Your task to perform on an android device: open app "Move to iOS" Image 0: 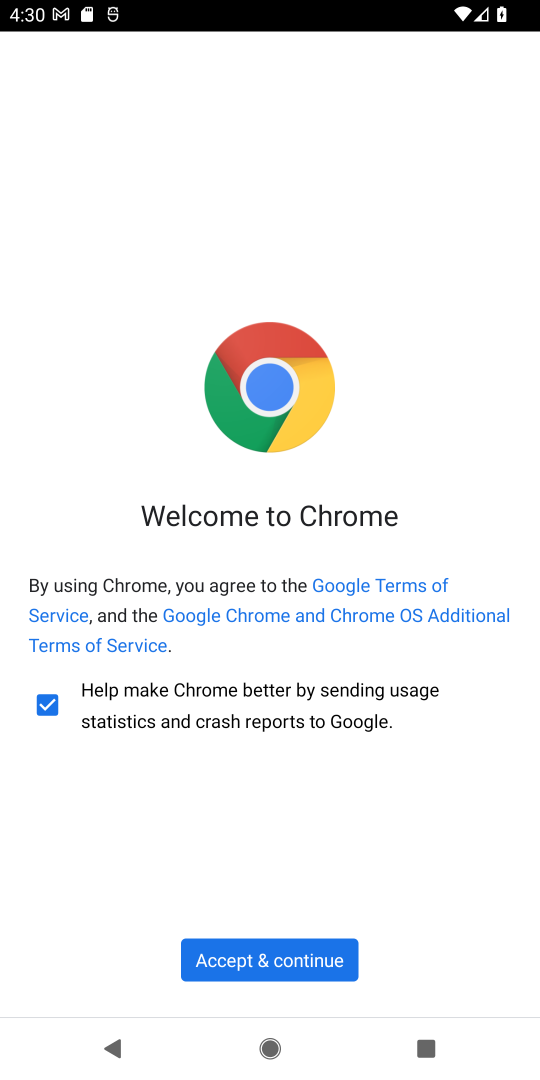
Step 0: press home button
Your task to perform on an android device: open app "Move to iOS" Image 1: 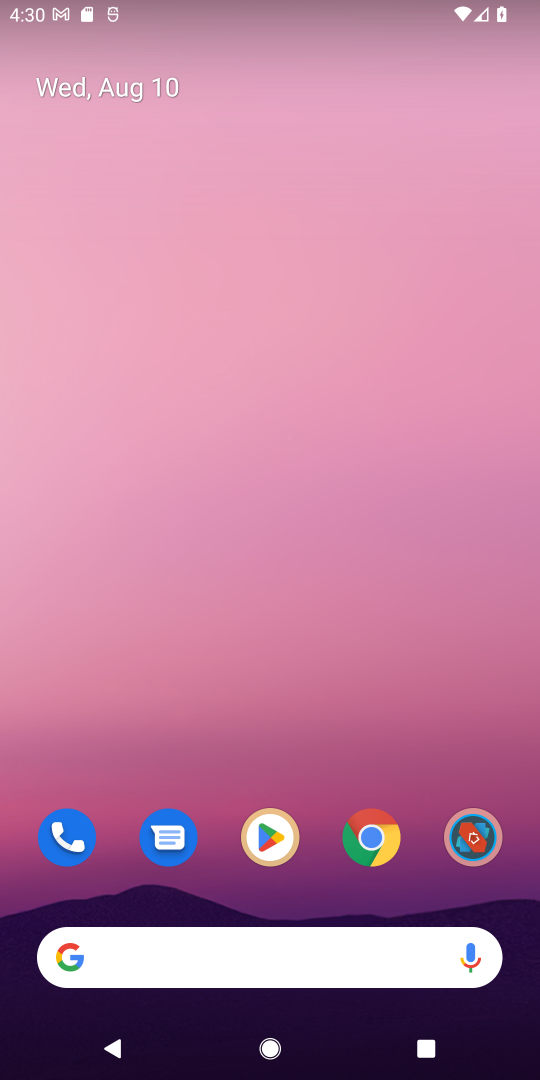
Step 1: click (264, 835)
Your task to perform on an android device: open app "Move to iOS" Image 2: 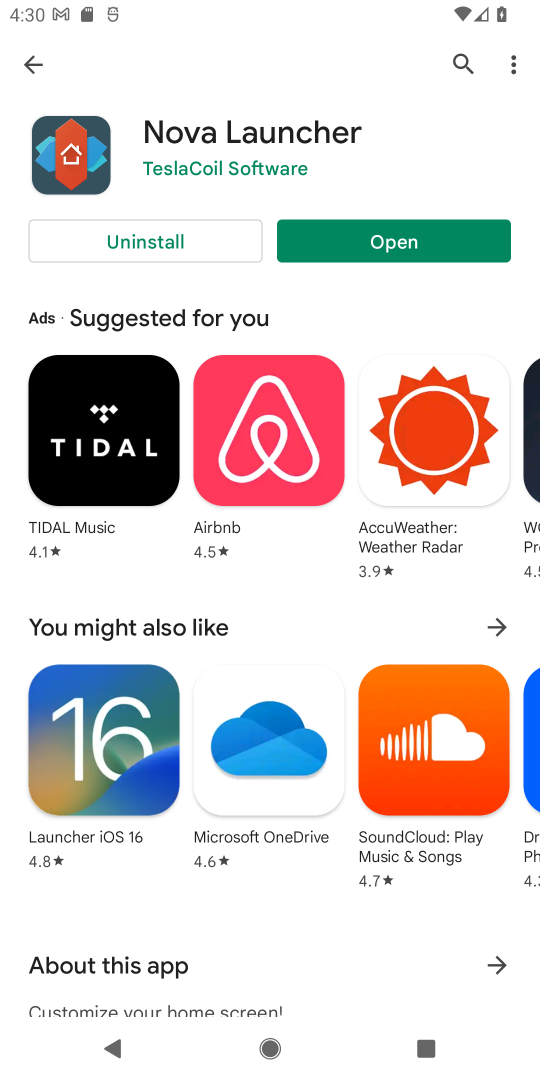
Step 2: click (460, 56)
Your task to perform on an android device: open app "Move to iOS" Image 3: 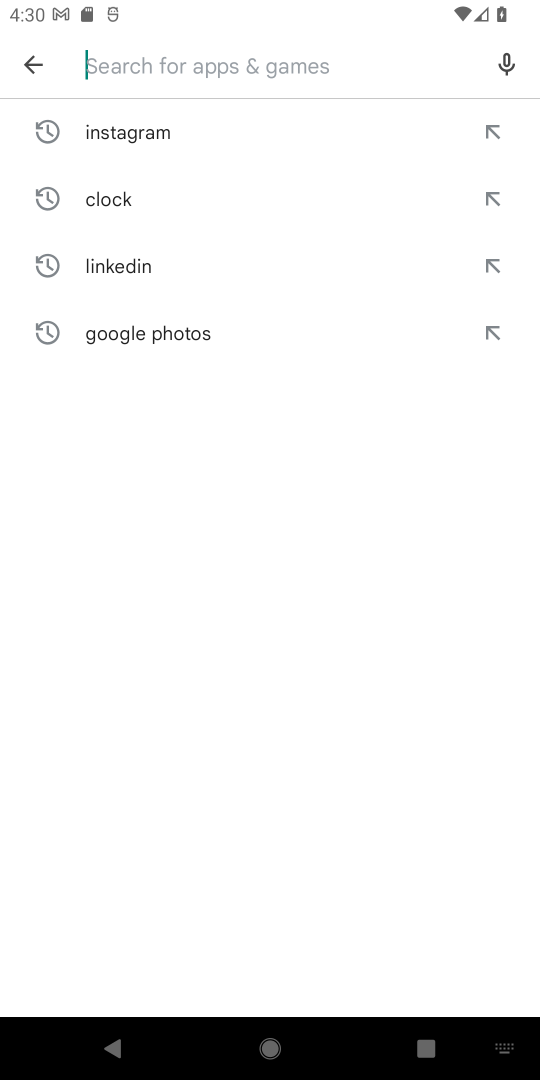
Step 3: type "Move to iOS"
Your task to perform on an android device: open app "Move to iOS" Image 4: 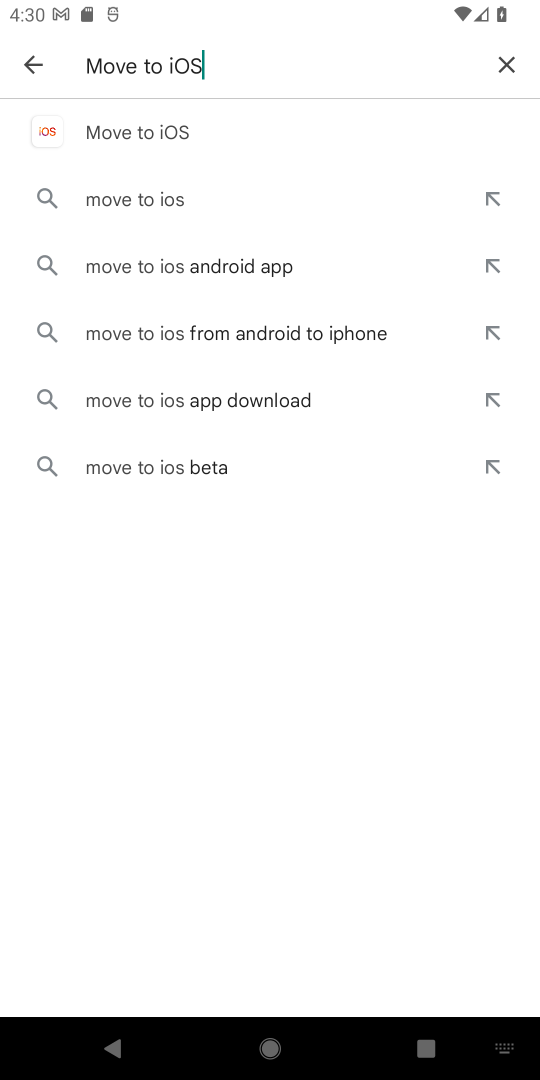
Step 4: click (183, 123)
Your task to perform on an android device: open app "Move to iOS" Image 5: 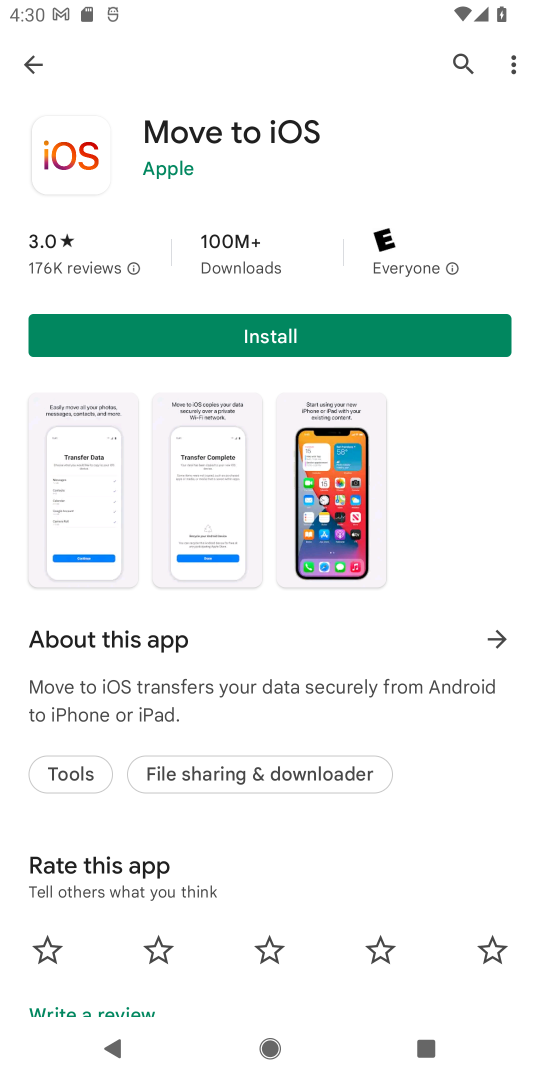
Step 5: task complete